Your task to perform on an android device: toggle notification dots Image 0: 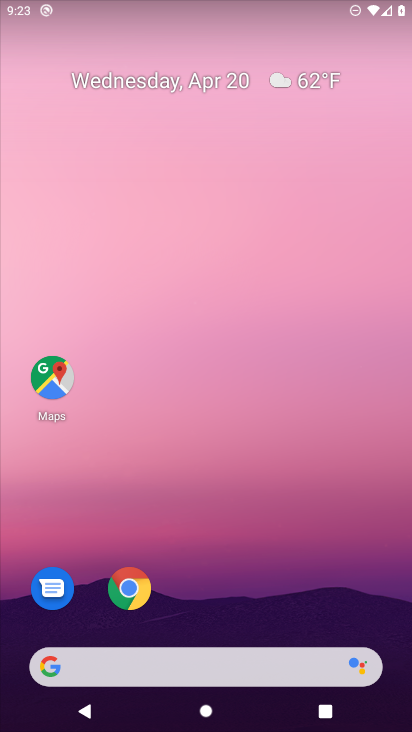
Step 0: drag from (214, 623) to (231, 72)
Your task to perform on an android device: toggle notification dots Image 1: 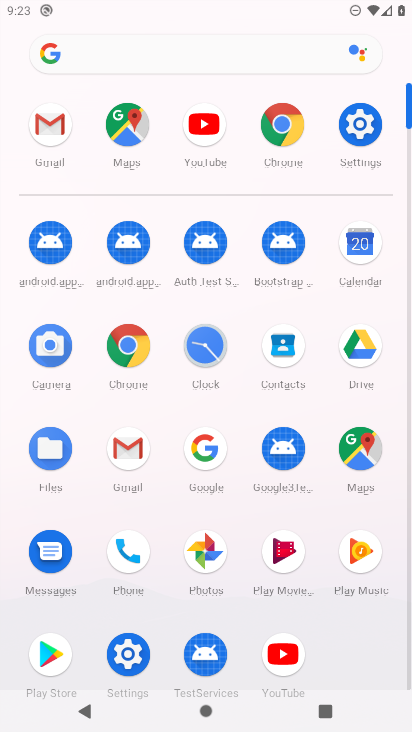
Step 1: click (358, 111)
Your task to perform on an android device: toggle notification dots Image 2: 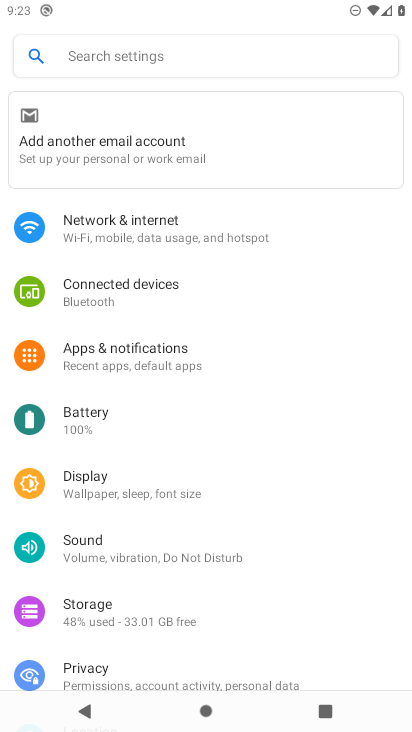
Step 2: click (154, 347)
Your task to perform on an android device: toggle notification dots Image 3: 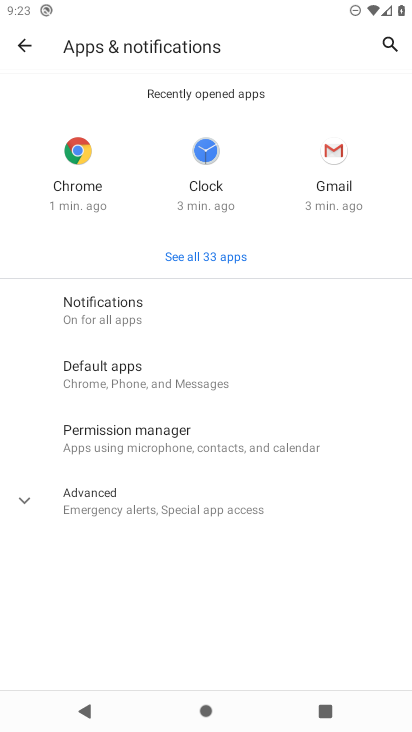
Step 3: click (109, 318)
Your task to perform on an android device: toggle notification dots Image 4: 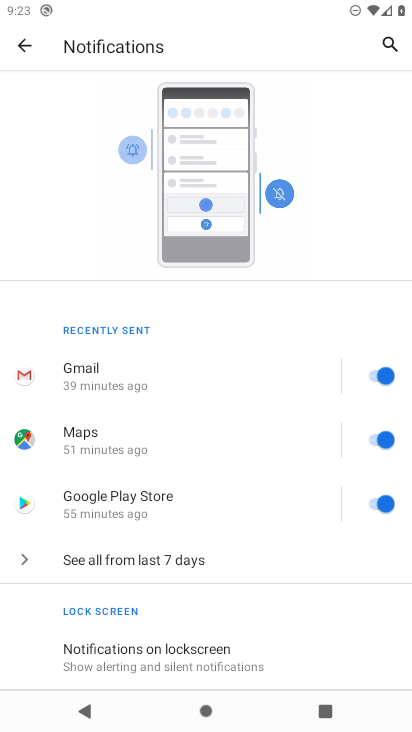
Step 4: drag from (220, 617) to (224, 209)
Your task to perform on an android device: toggle notification dots Image 5: 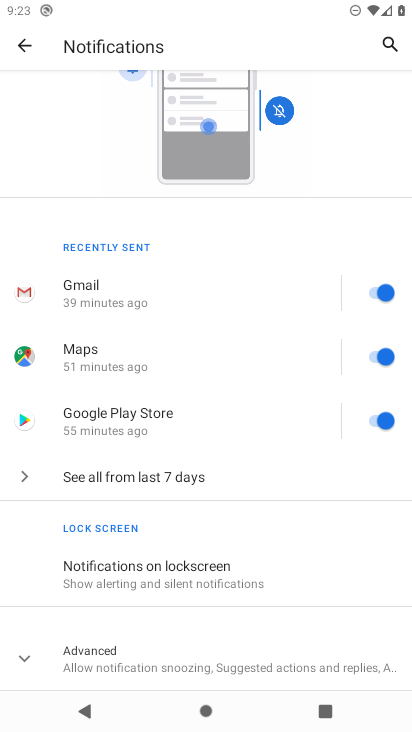
Step 5: click (124, 659)
Your task to perform on an android device: toggle notification dots Image 6: 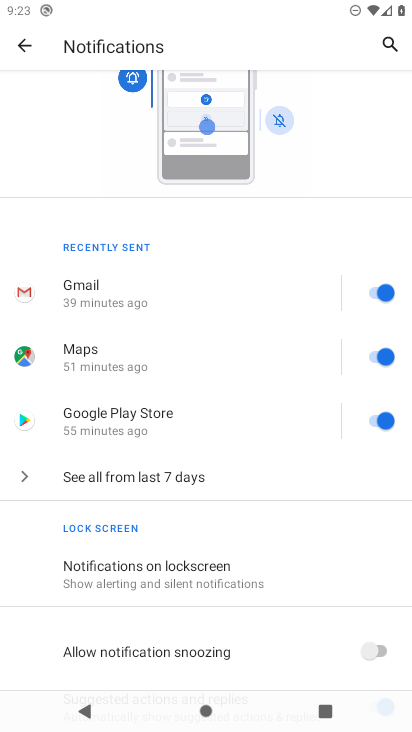
Step 6: drag from (226, 622) to (222, 158)
Your task to perform on an android device: toggle notification dots Image 7: 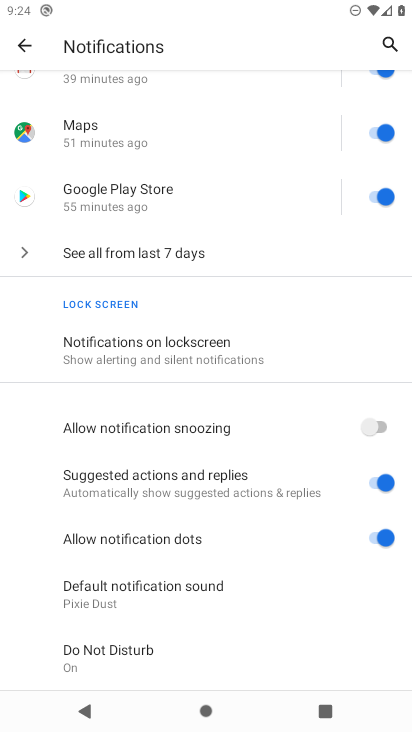
Step 7: click (377, 531)
Your task to perform on an android device: toggle notification dots Image 8: 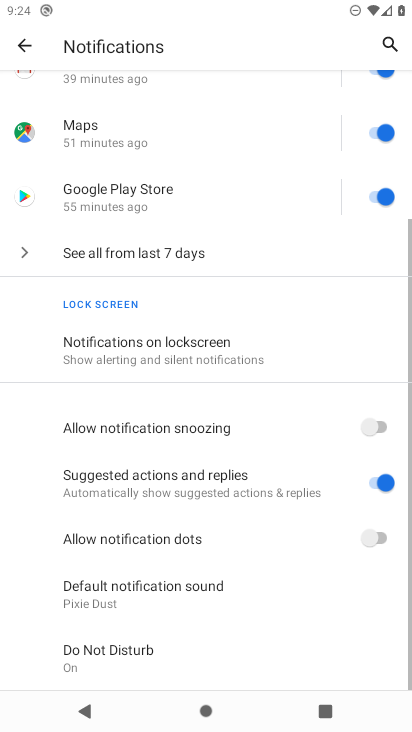
Step 8: task complete